Your task to perform on an android device: toggle show notifications on the lock screen Image 0: 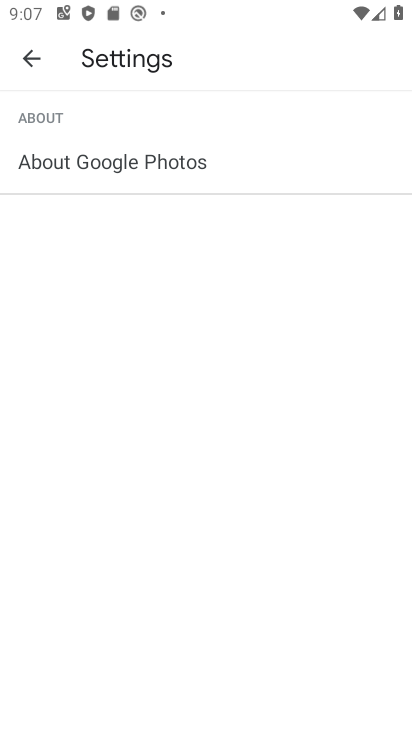
Step 0: press home button
Your task to perform on an android device: toggle show notifications on the lock screen Image 1: 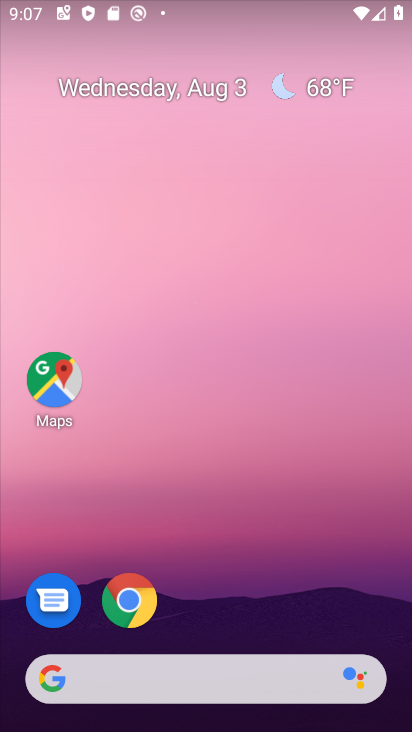
Step 1: drag from (216, 627) to (205, 8)
Your task to perform on an android device: toggle show notifications on the lock screen Image 2: 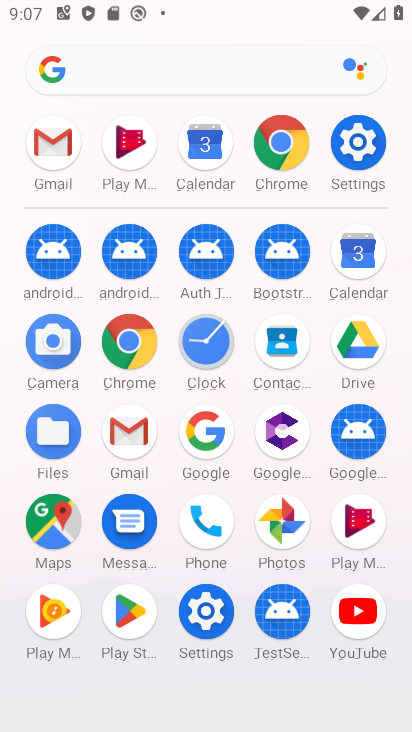
Step 2: click (199, 614)
Your task to perform on an android device: toggle show notifications on the lock screen Image 3: 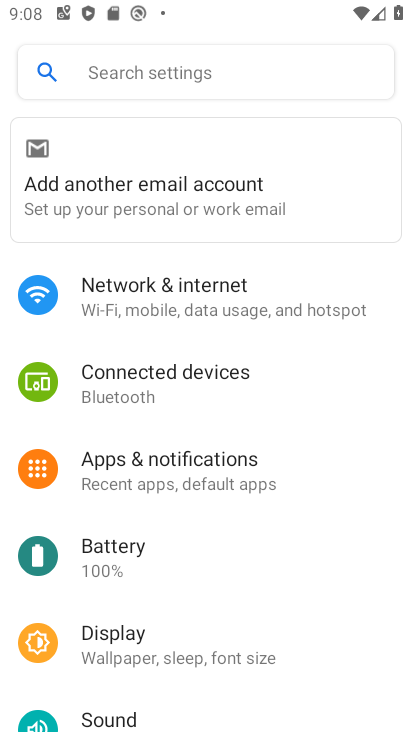
Step 3: click (216, 472)
Your task to perform on an android device: toggle show notifications on the lock screen Image 4: 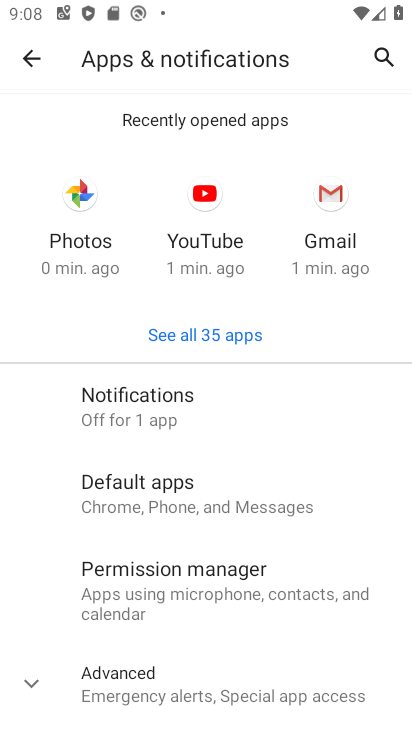
Step 4: click (185, 394)
Your task to perform on an android device: toggle show notifications on the lock screen Image 5: 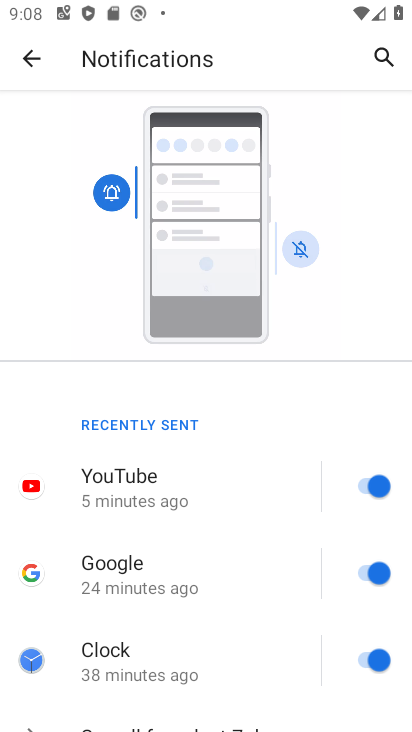
Step 5: drag from (165, 581) to (184, 363)
Your task to perform on an android device: toggle show notifications on the lock screen Image 6: 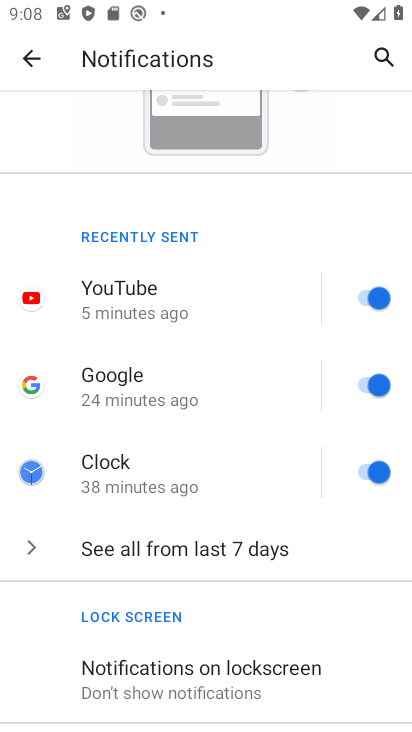
Step 6: click (170, 677)
Your task to perform on an android device: toggle show notifications on the lock screen Image 7: 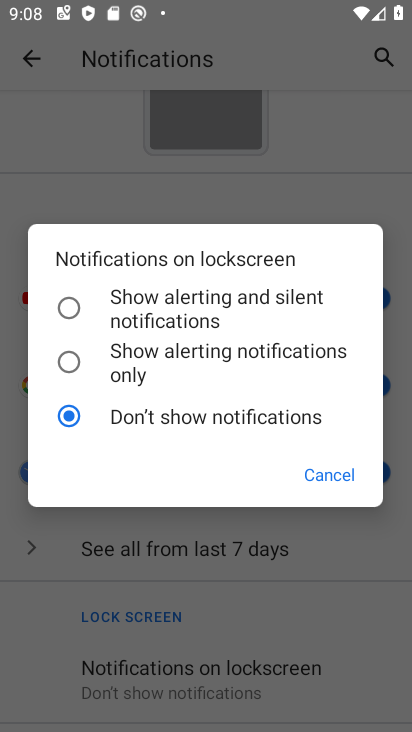
Step 7: click (127, 306)
Your task to perform on an android device: toggle show notifications on the lock screen Image 8: 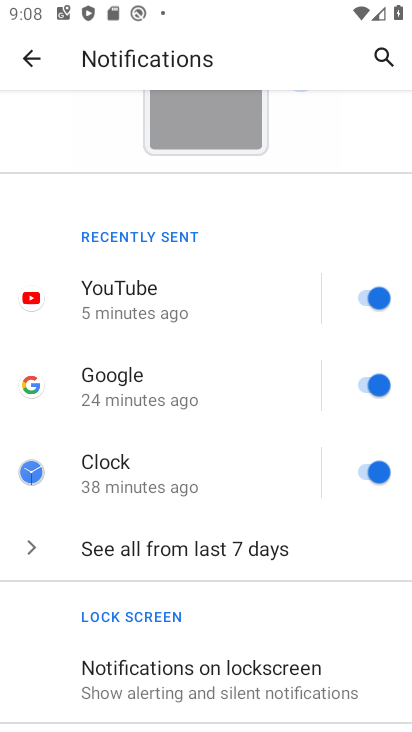
Step 8: task complete